Your task to perform on an android device: turn off data saver in the chrome app Image 0: 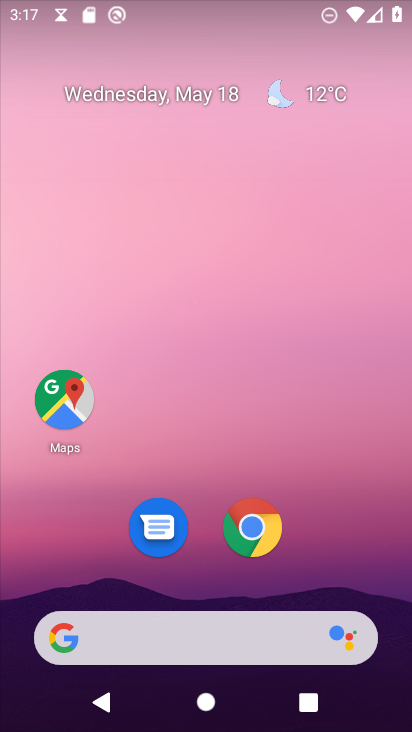
Step 0: click (263, 521)
Your task to perform on an android device: turn off data saver in the chrome app Image 1: 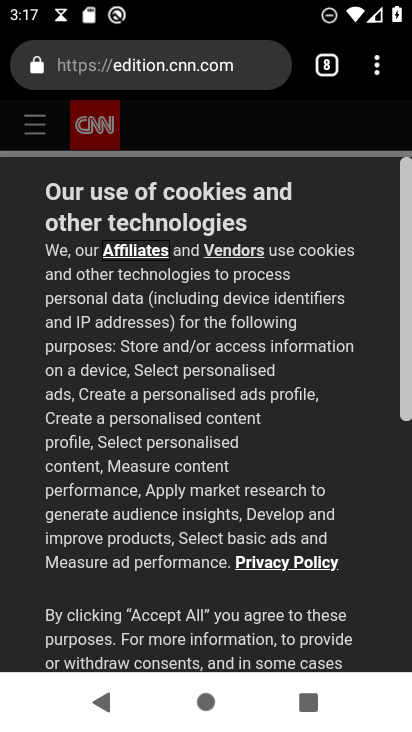
Step 1: click (380, 64)
Your task to perform on an android device: turn off data saver in the chrome app Image 2: 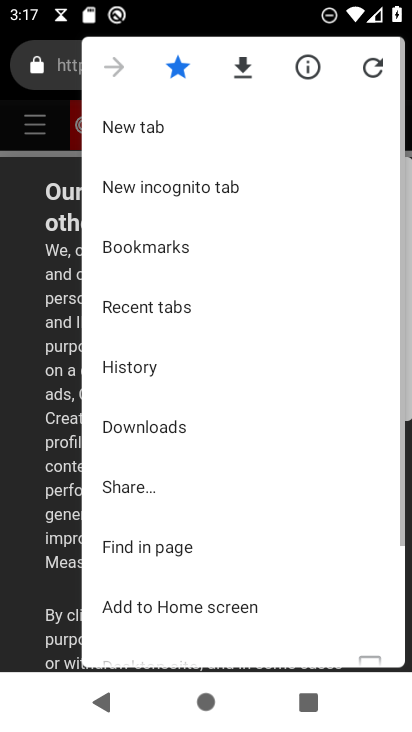
Step 2: drag from (294, 522) to (238, 109)
Your task to perform on an android device: turn off data saver in the chrome app Image 3: 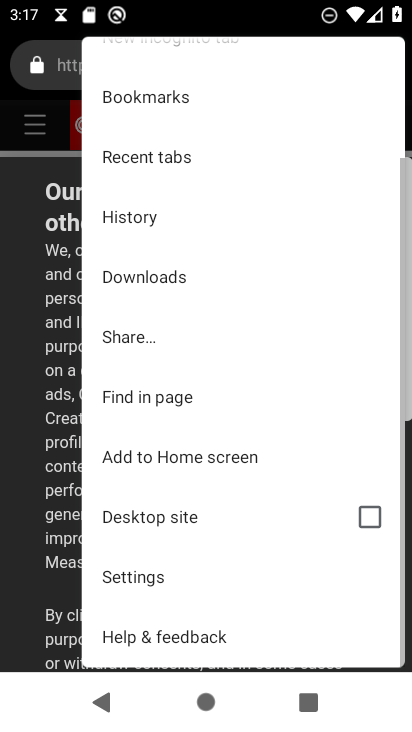
Step 3: click (249, 573)
Your task to perform on an android device: turn off data saver in the chrome app Image 4: 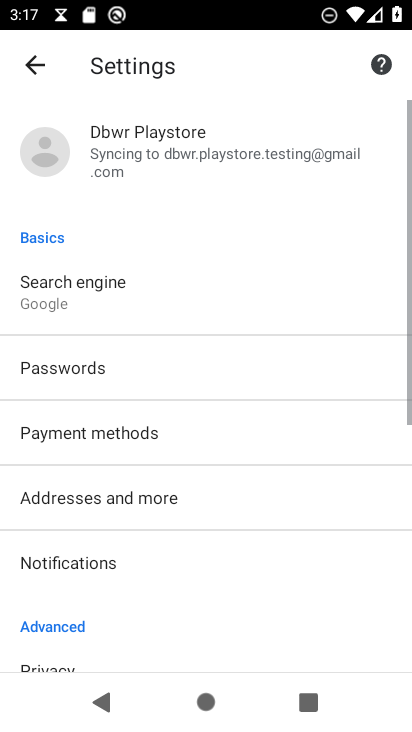
Step 4: drag from (212, 564) to (197, 137)
Your task to perform on an android device: turn off data saver in the chrome app Image 5: 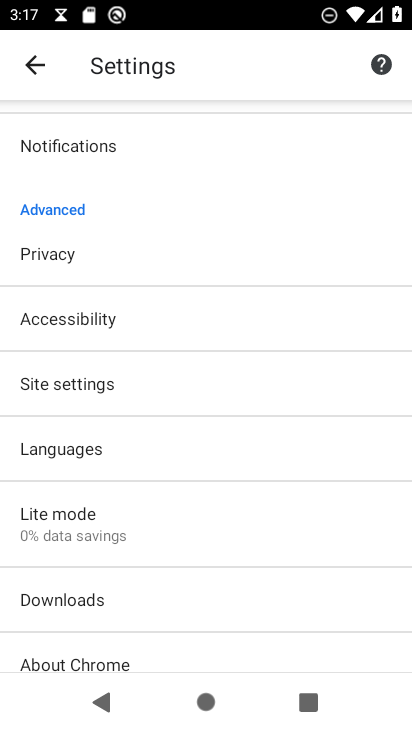
Step 5: click (145, 521)
Your task to perform on an android device: turn off data saver in the chrome app Image 6: 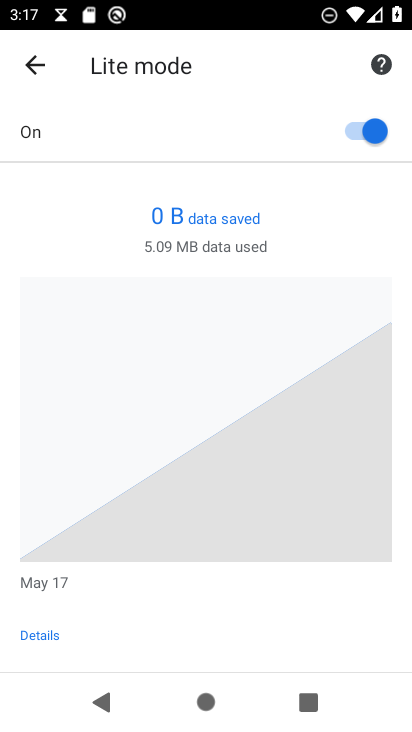
Step 6: click (373, 126)
Your task to perform on an android device: turn off data saver in the chrome app Image 7: 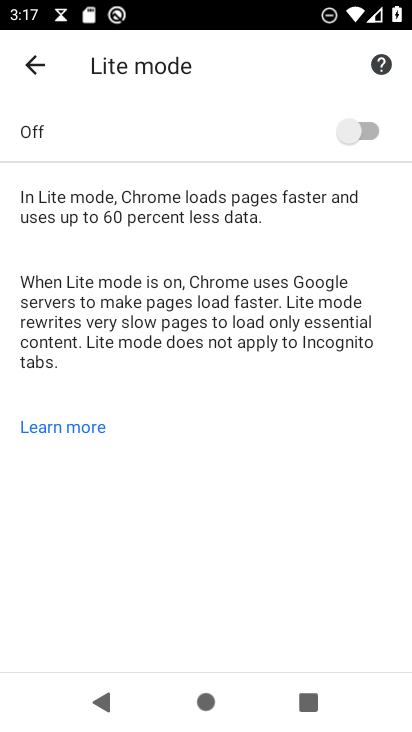
Step 7: task complete